Your task to perform on an android device: Clear the shopping cart on bestbuy.com. Image 0: 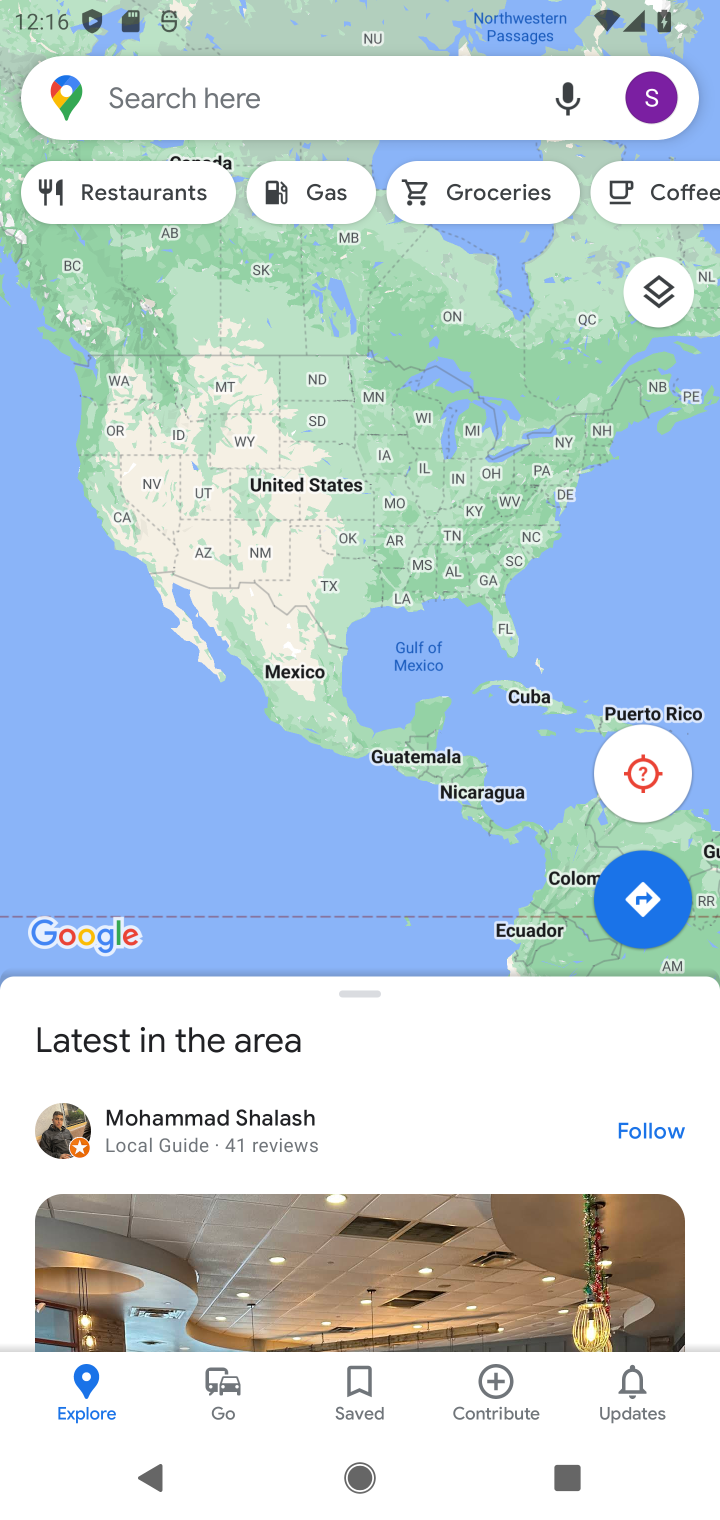
Step 0: press home button
Your task to perform on an android device: Clear the shopping cart on bestbuy.com. Image 1: 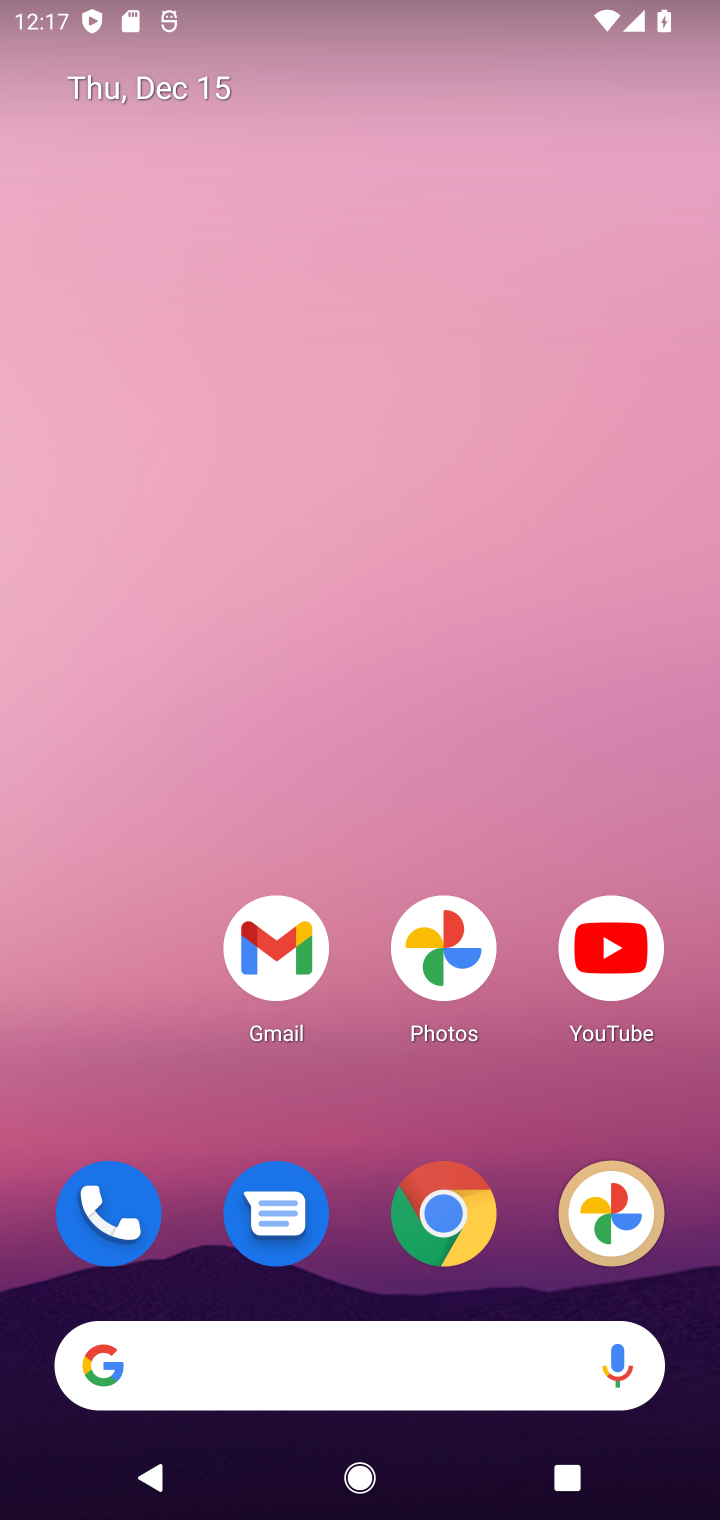
Step 1: click (438, 1212)
Your task to perform on an android device: Clear the shopping cart on bestbuy.com. Image 2: 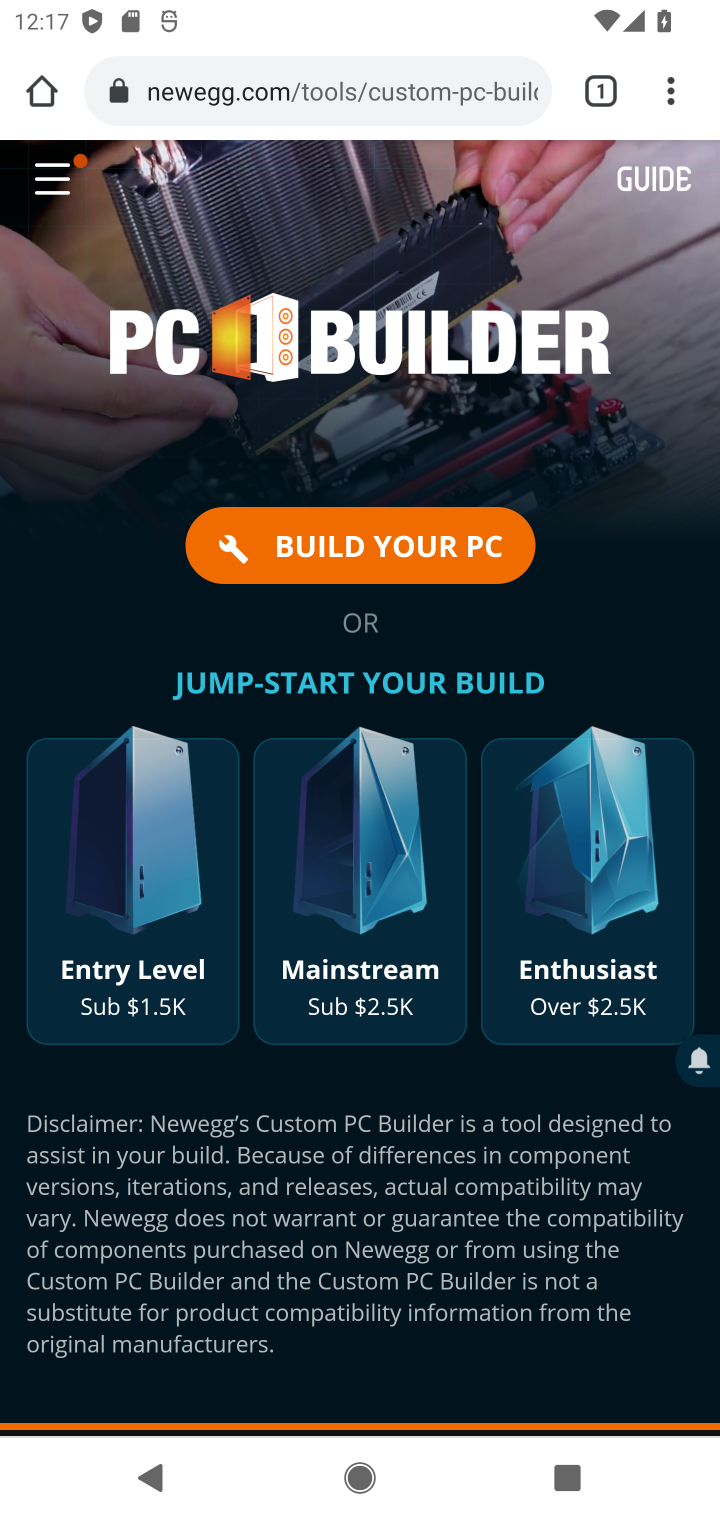
Step 2: click (191, 118)
Your task to perform on an android device: Clear the shopping cart on bestbuy.com. Image 3: 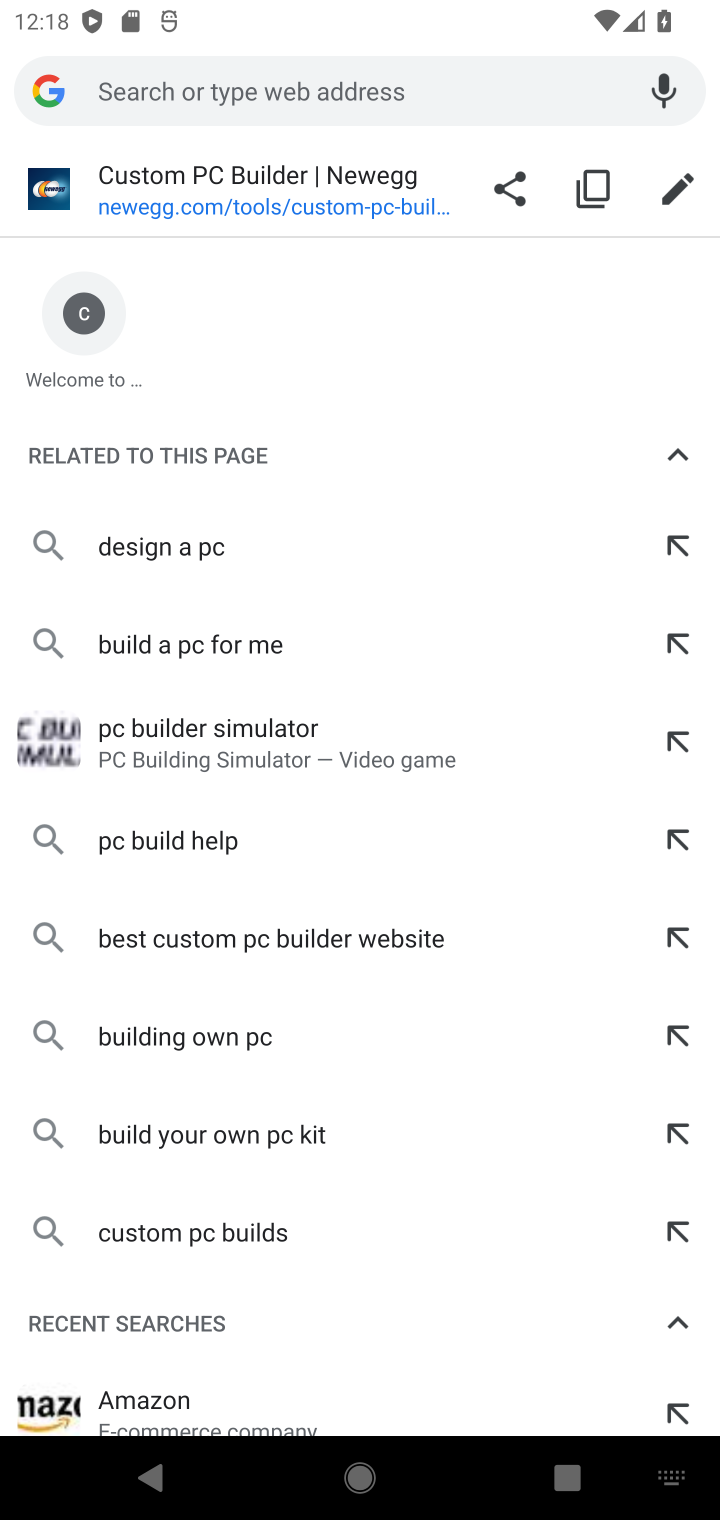
Step 3: type "bestbuy"
Your task to perform on an android device: Clear the shopping cart on bestbuy.com. Image 4: 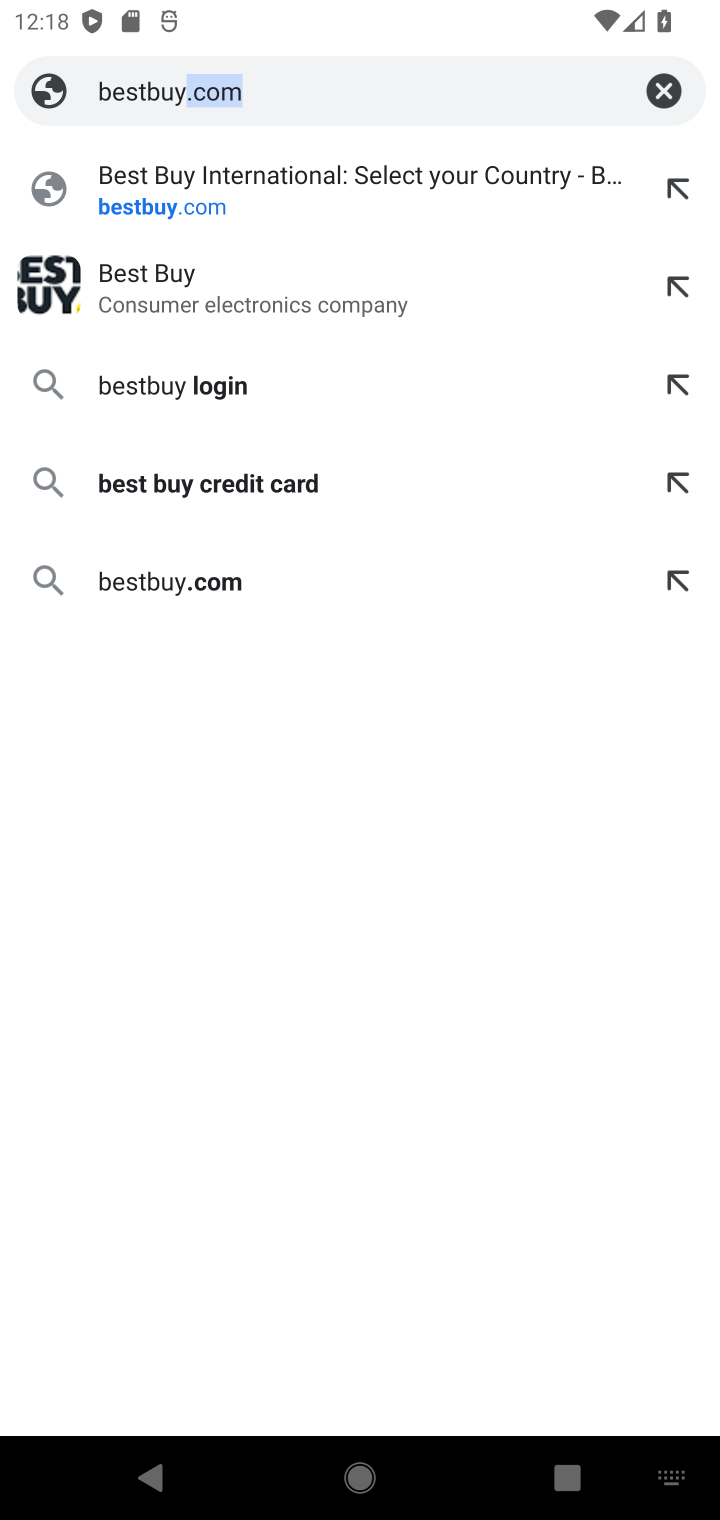
Step 4: click (140, 187)
Your task to perform on an android device: Clear the shopping cart on bestbuy.com. Image 5: 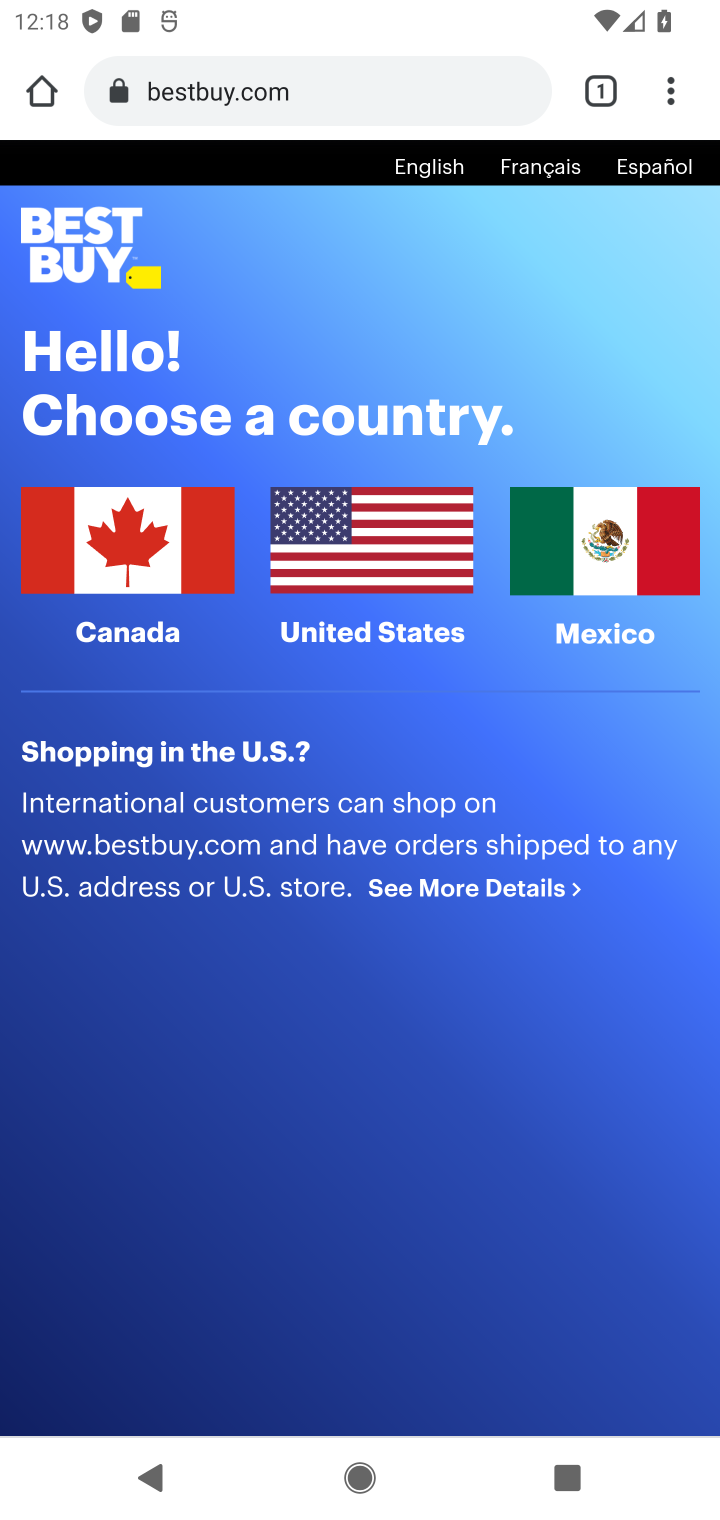
Step 5: click (115, 517)
Your task to perform on an android device: Clear the shopping cart on bestbuy.com. Image 6: 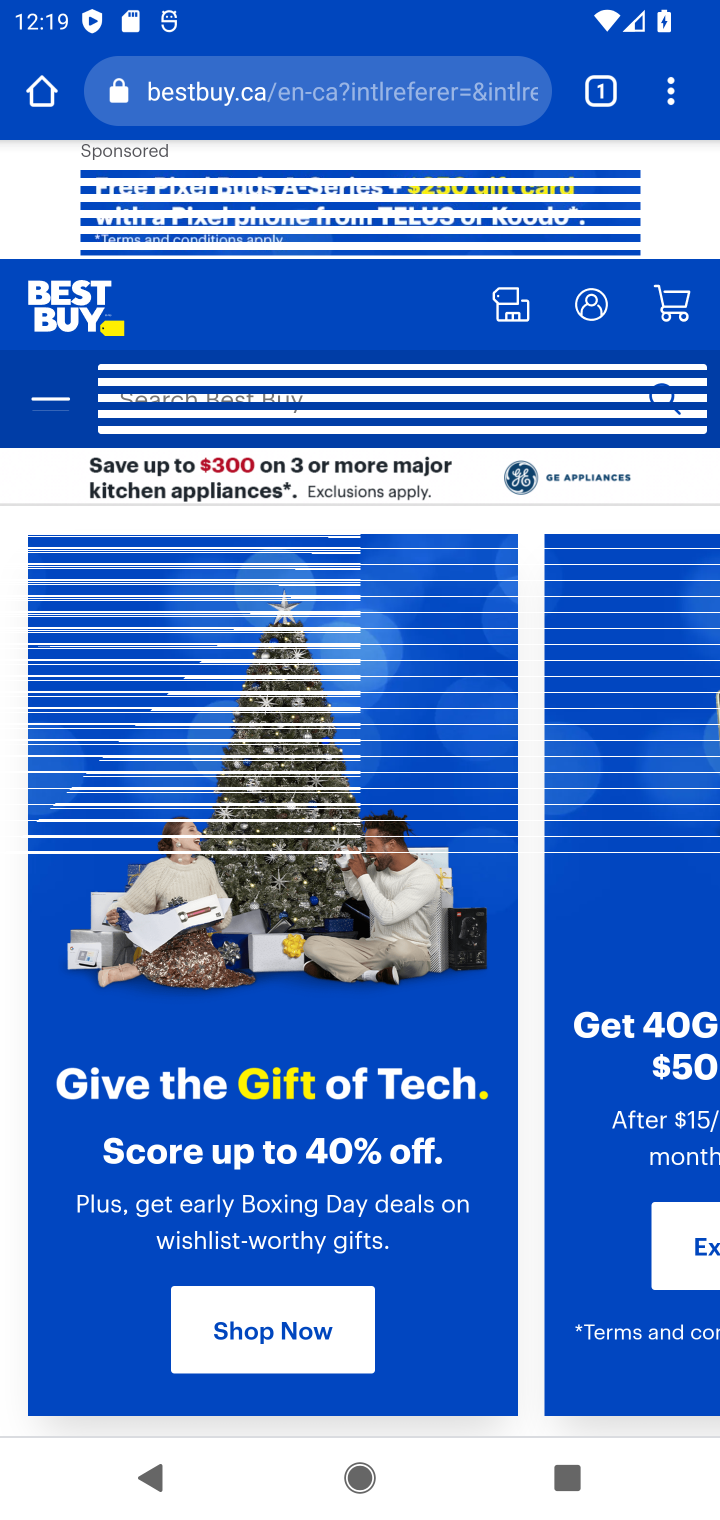
Step 6: click (391, 402)
Your task to perform on an android device: Clear the shopping cart on bestbuy.com. Image 7: 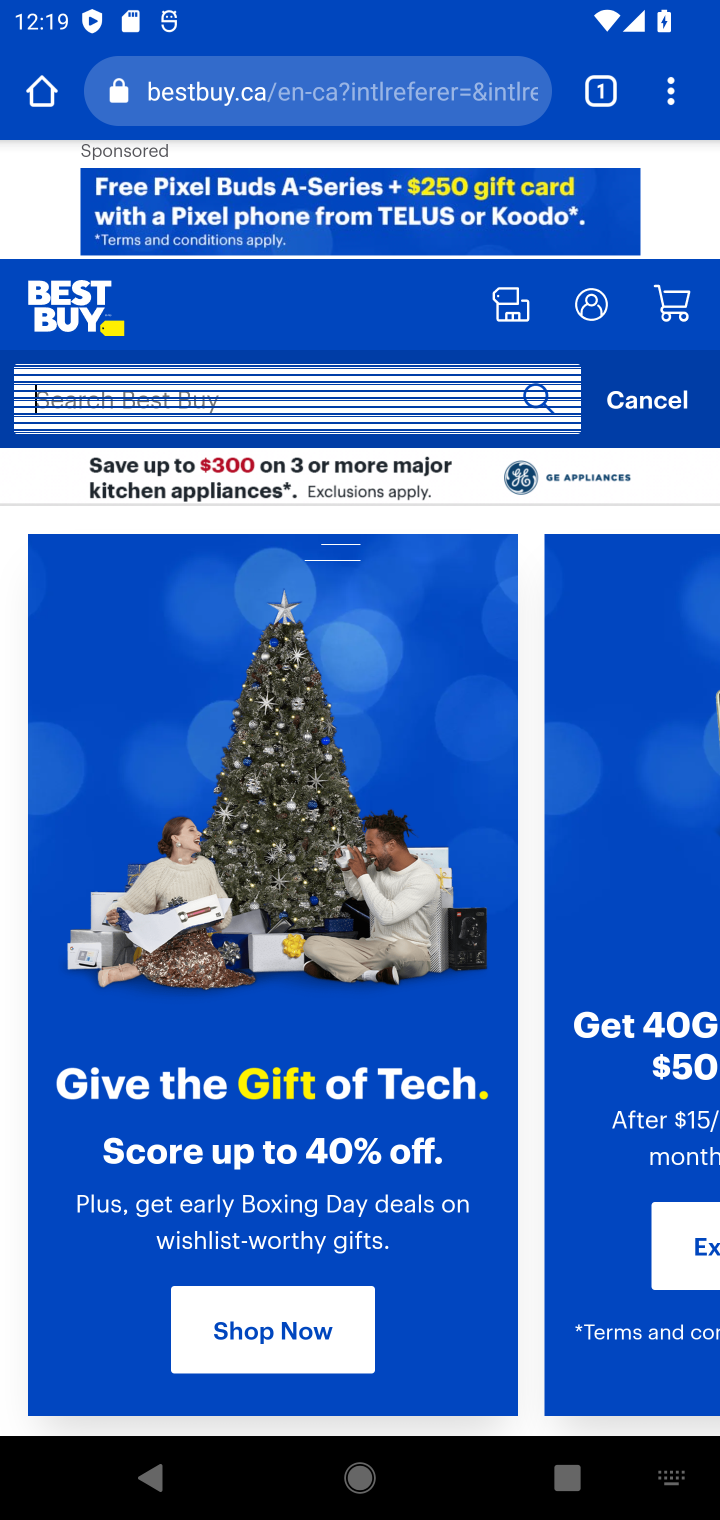
Step 7: click (682, 324)
Your task to perform on an android device: Clear the shopping cart on bestbuy.com. Image 8: 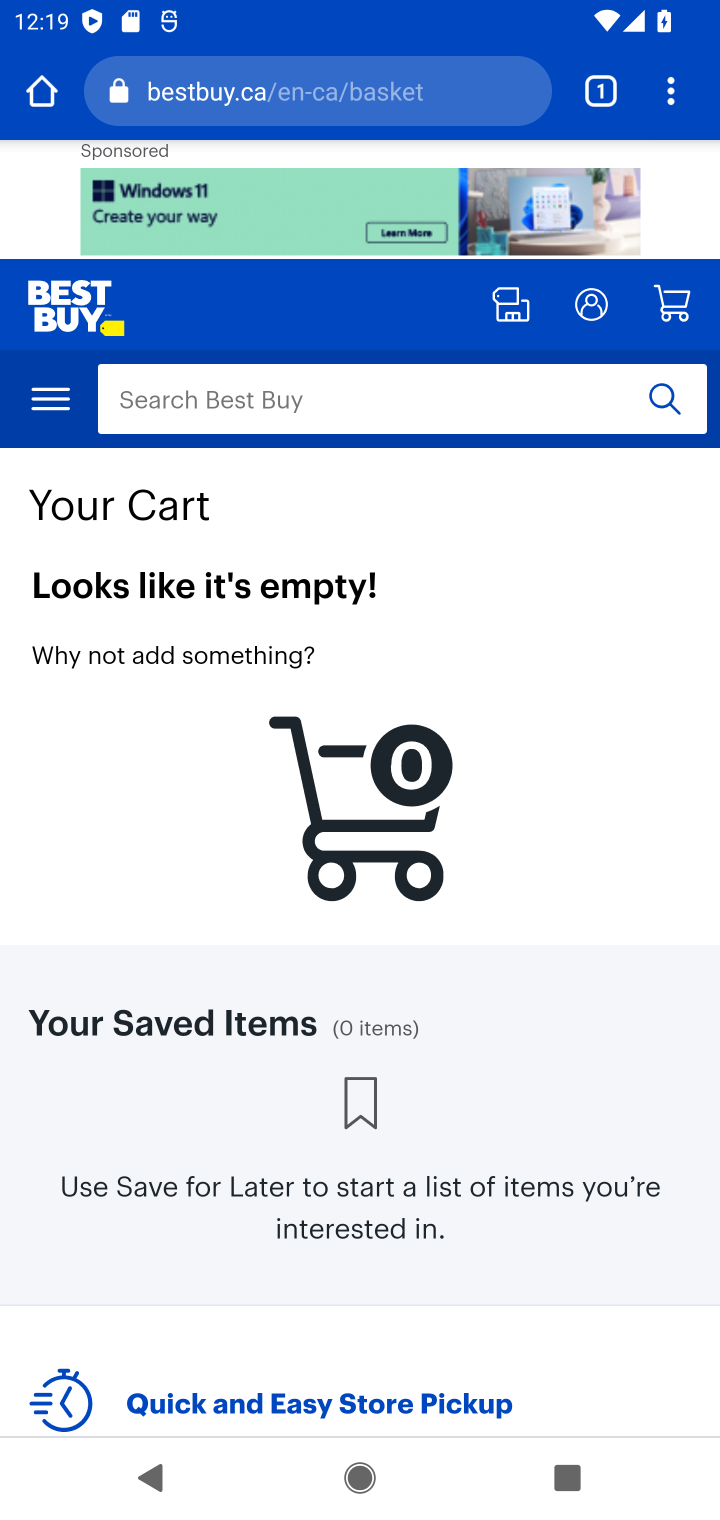
Step 8: click (327, 392)
Your task to perform on an android device: Clear the shopping cart on bestbuy.com. Image 9: 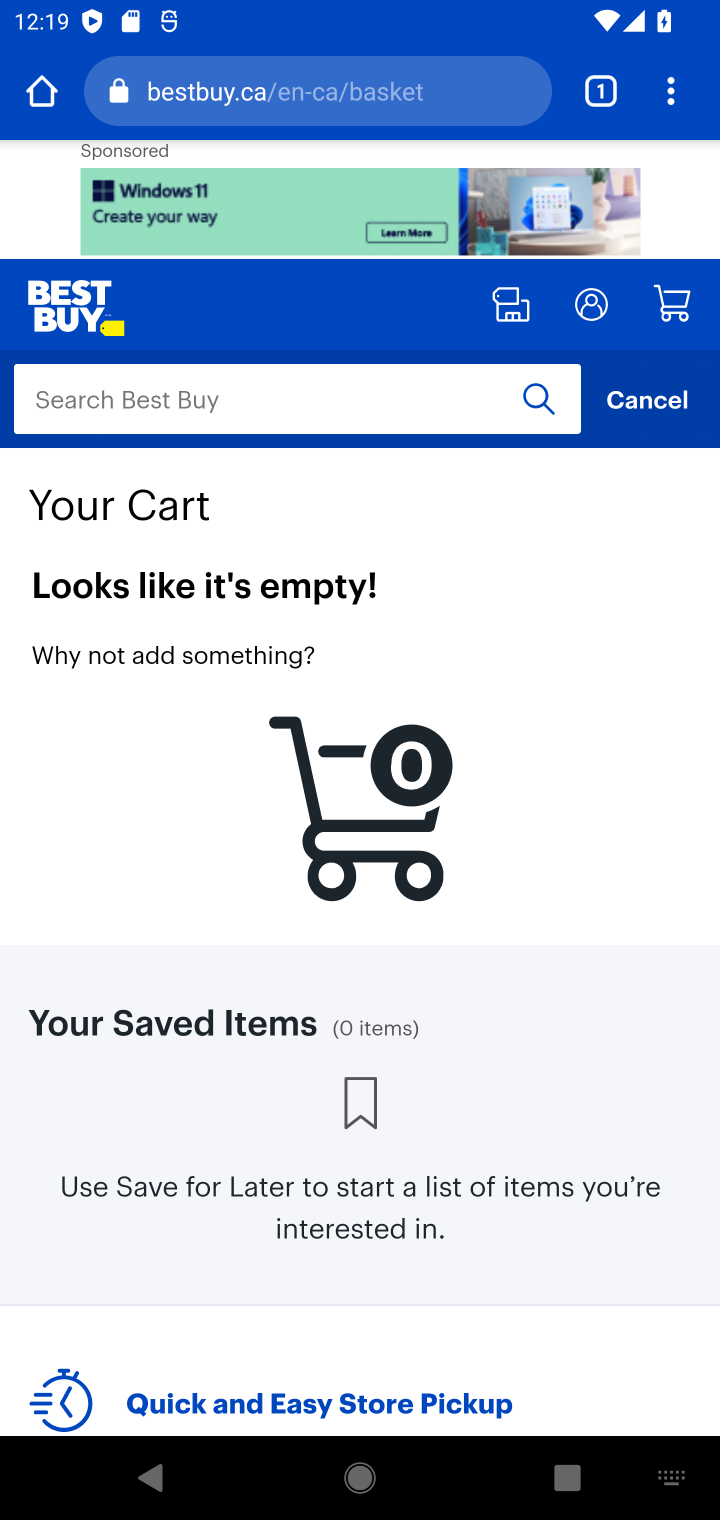
Step 9: task complete